Your task to perform on an android device: Show the shopping cart on ebay. Add bose quietcomfort 35 to the cart on ebay Image 0: 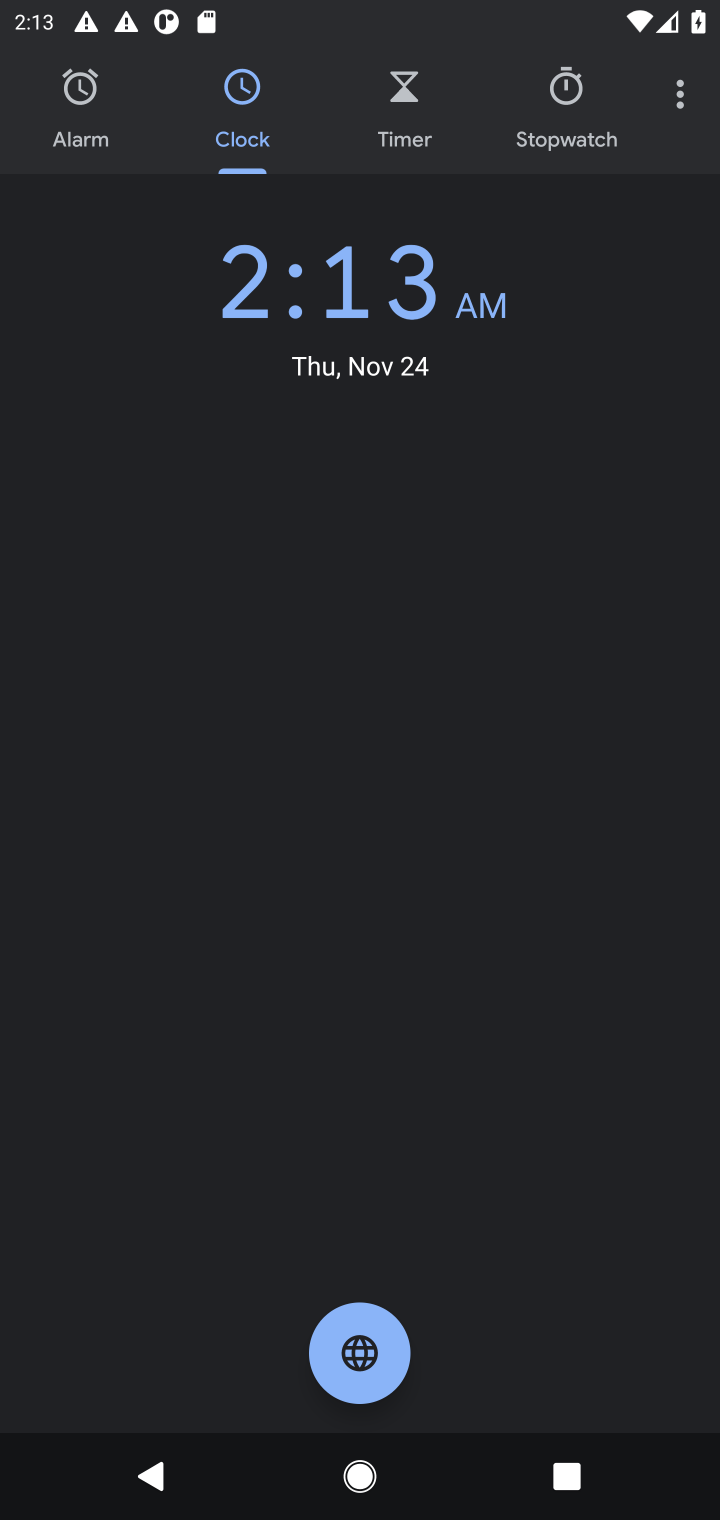
Step 0: press home button
Your task to perform on an android device: Show the shopping cart on ebay. Add bose quietcomfort 35 to the cart on ebay Image 1: 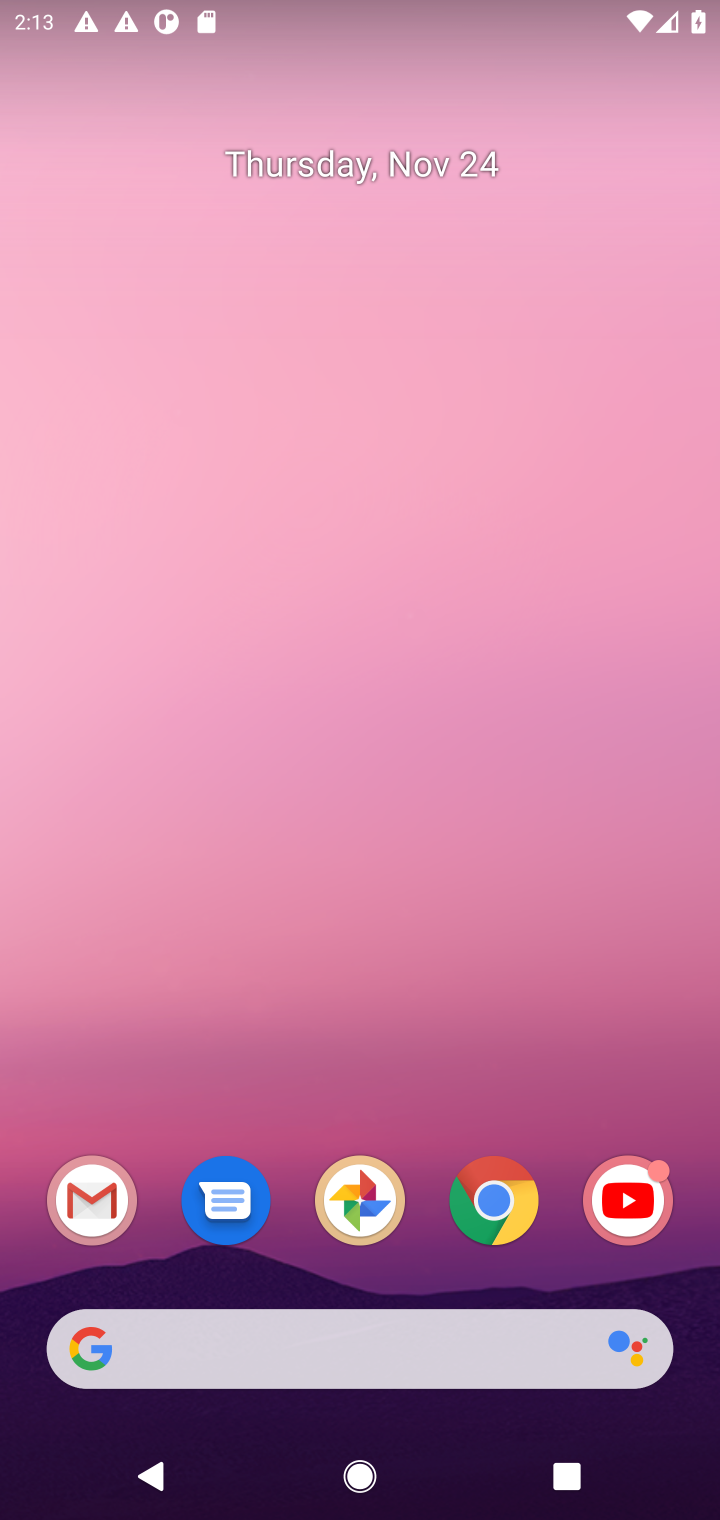
Step 1: click (218, 1339)
Your task to perform on an android device: Show the shopping cart on ebay. Add bose quietcomfort 35 to the cart on ebay Image 2: 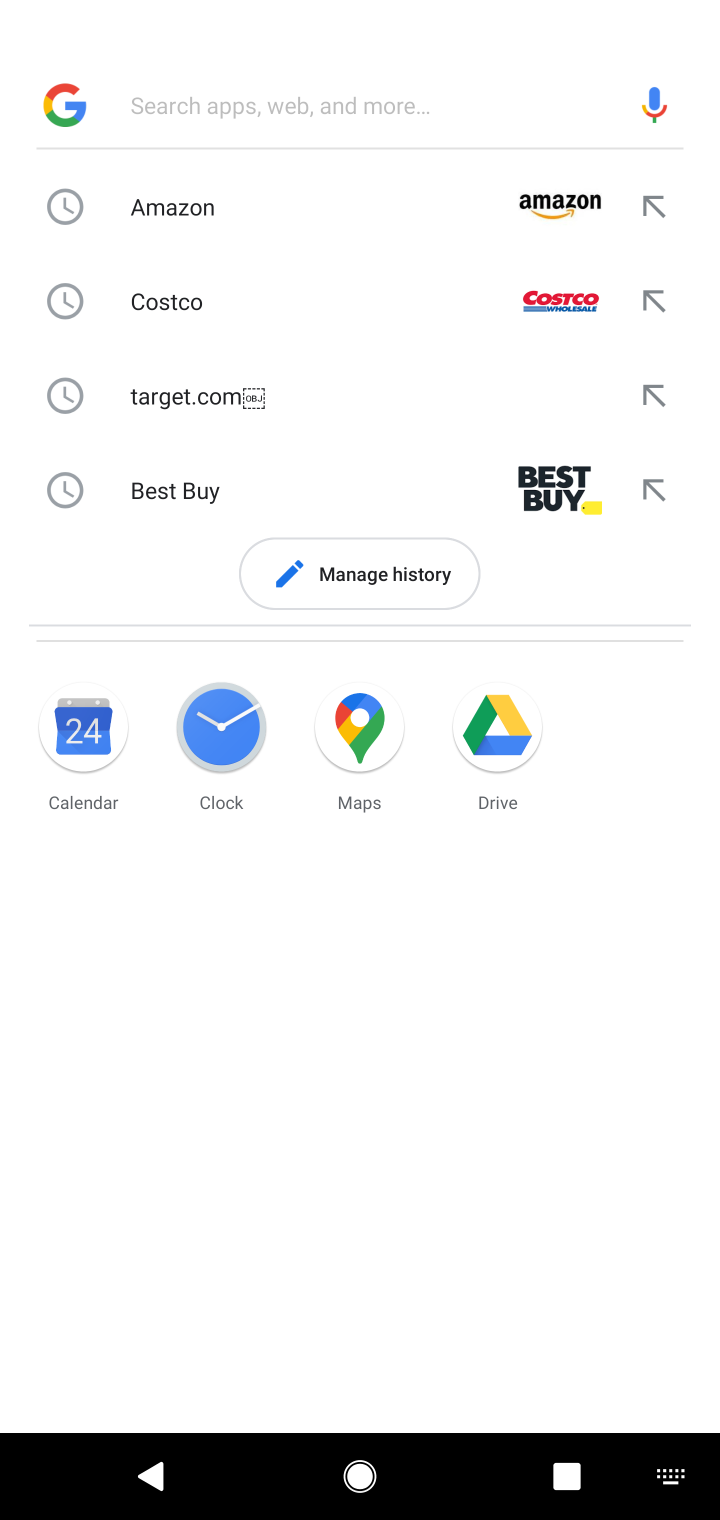
Step 2: click (190, 190)
Your task to perform on an android device: Show the shopping cart on ebay. Add bose quietcomfort 35 to the cart on ebay Image 3: 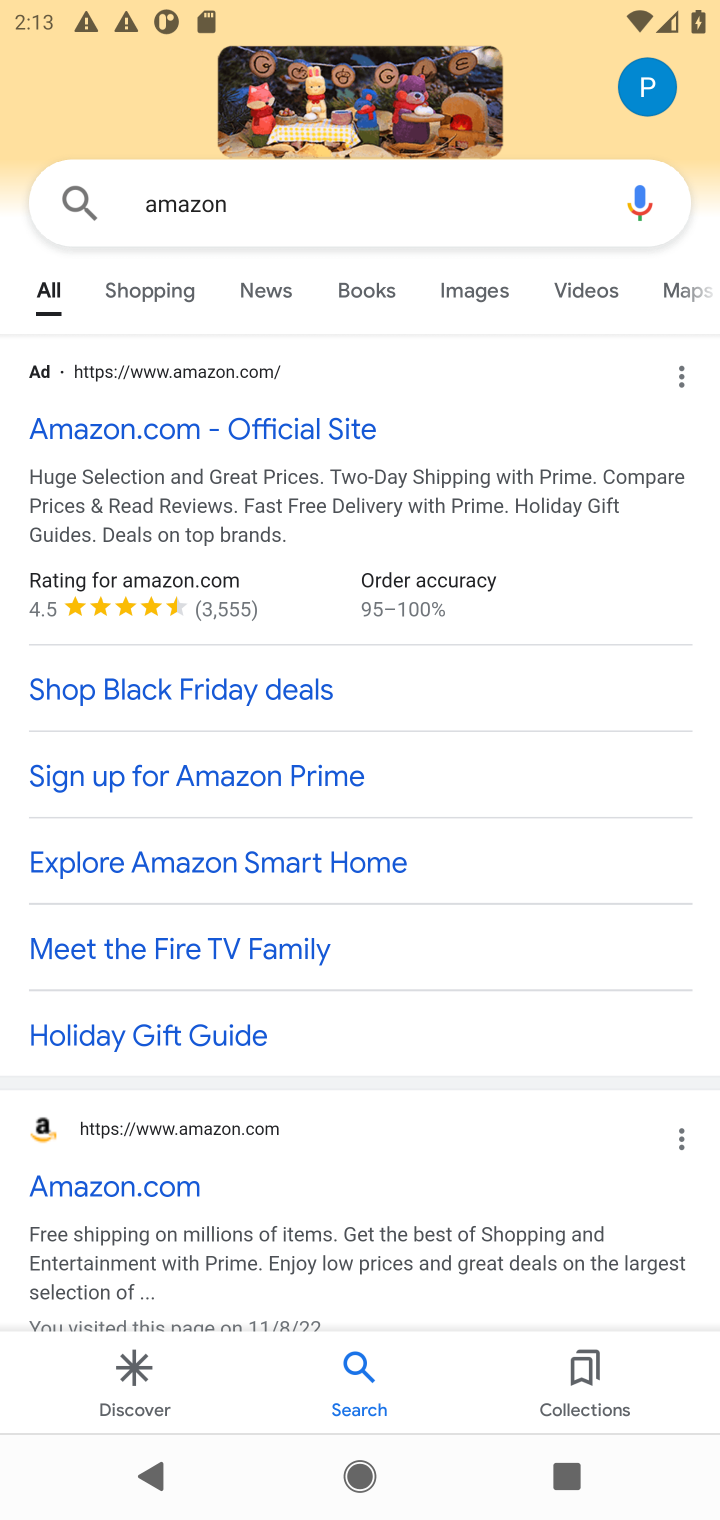
Step 3: click (173, 427)
Your task to perform on an android device: Show the shopping cart on ebay. Add bose quietcomfort 35 to the cart on ebay Image 4: 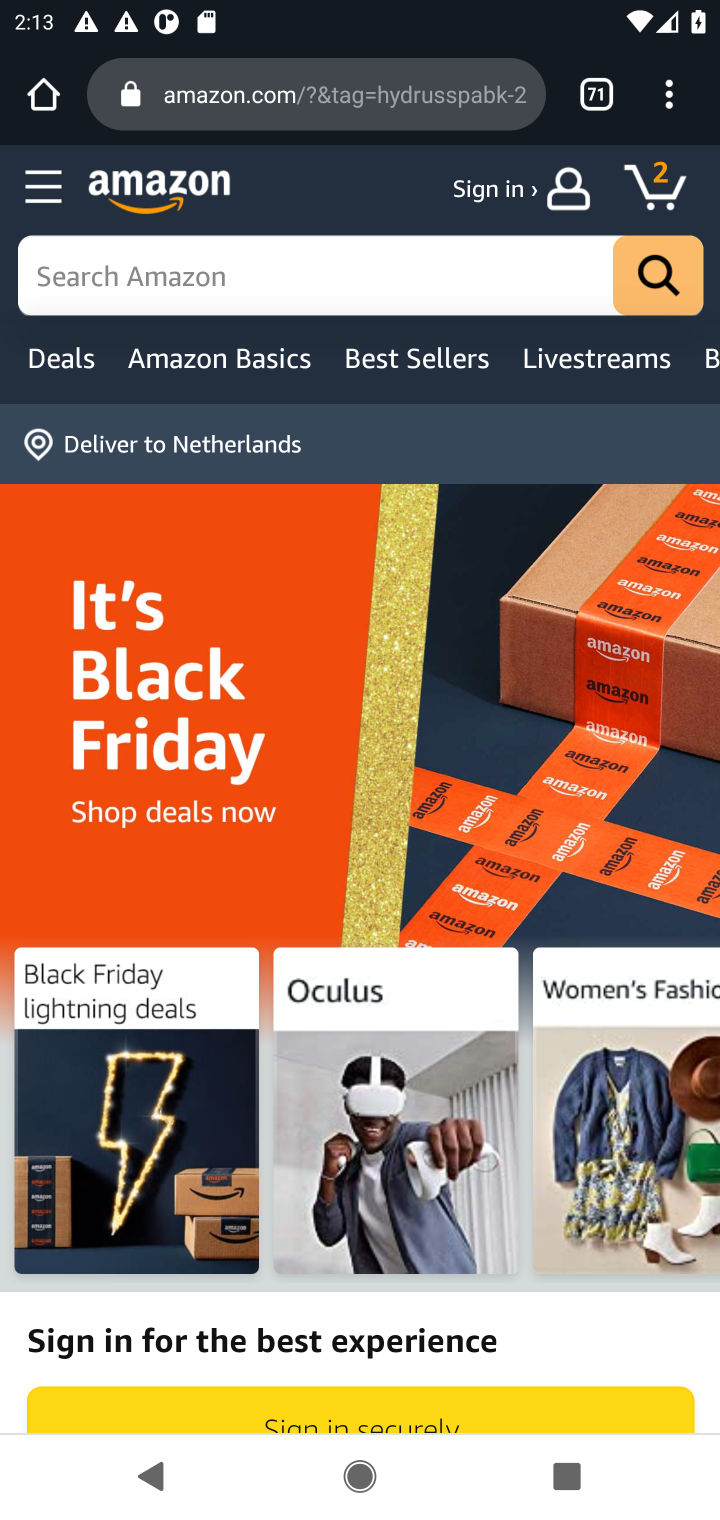
Step 4: click (461, 283)
Your task to perform on an android device: Show the shopping cart on ebay. Add bose quietcomfort 35 to the cart on ebay Image 5: 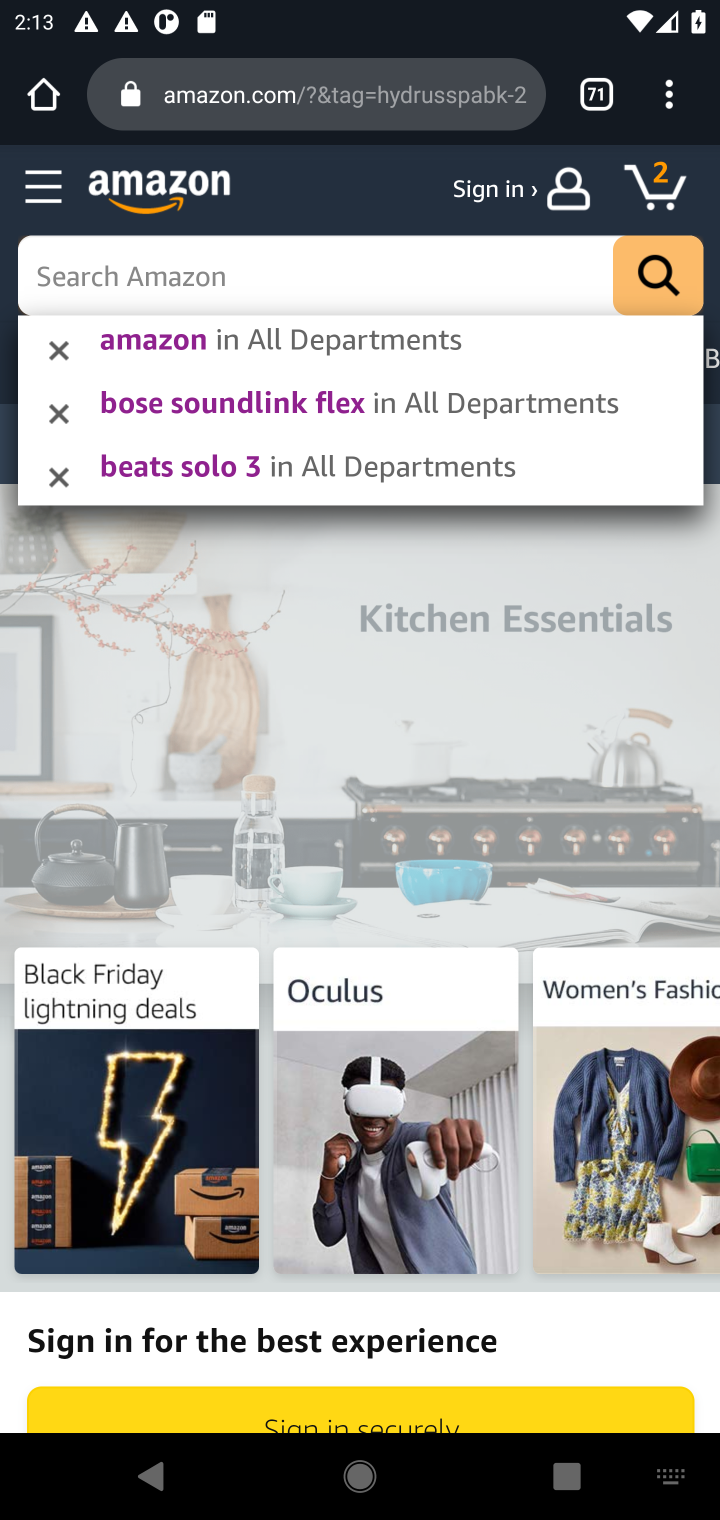
Step 5: task complete